Your task to perform on an android device: open wifi settings Image 0: 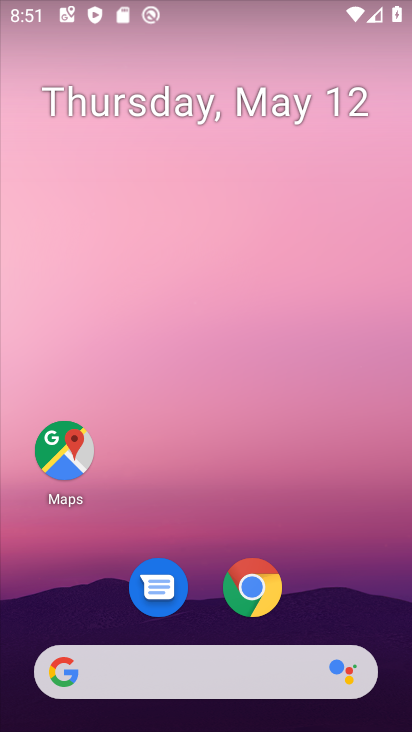
Step 0: drag from (340, 613) to (286, 213)
Your task to perform on an android device: open wifi settings Image 1: 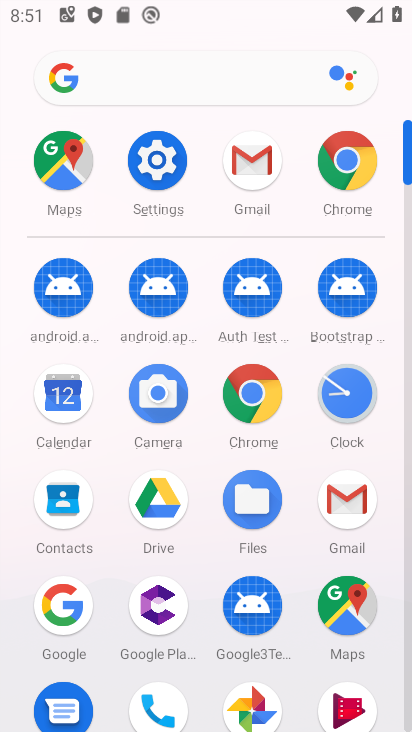
Step 1: click (150, 142)
Your task to perform on an android device: open wifi settings Image 2: 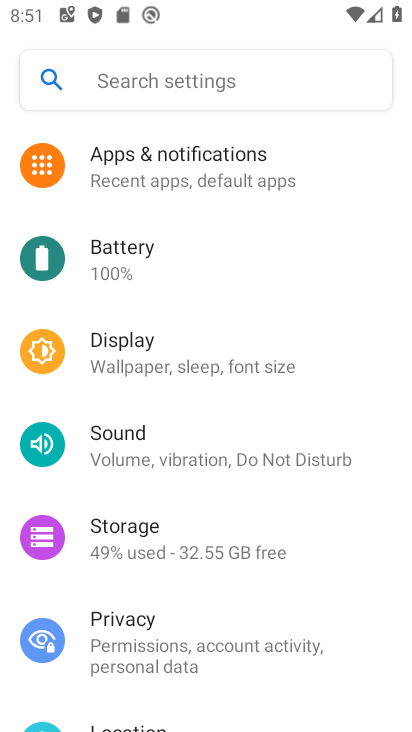
Step 2: drag from (232, 171) to (225, 604)
Your task to perform on an android device: open wifi settings Image 3: 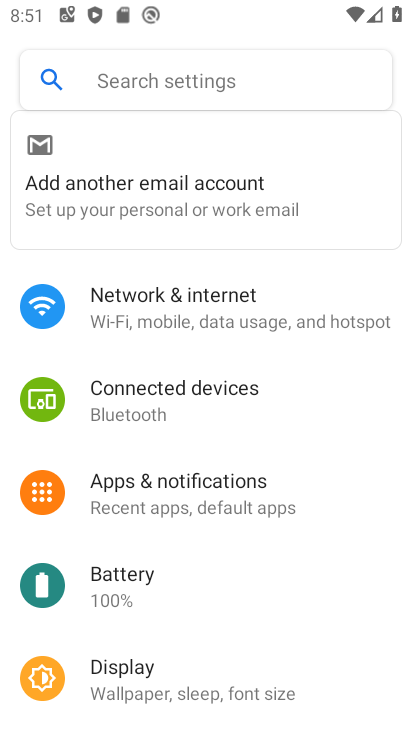
Step 3: click (227, 304)
Your task to perform on an android device: open wifi settings Image 4: 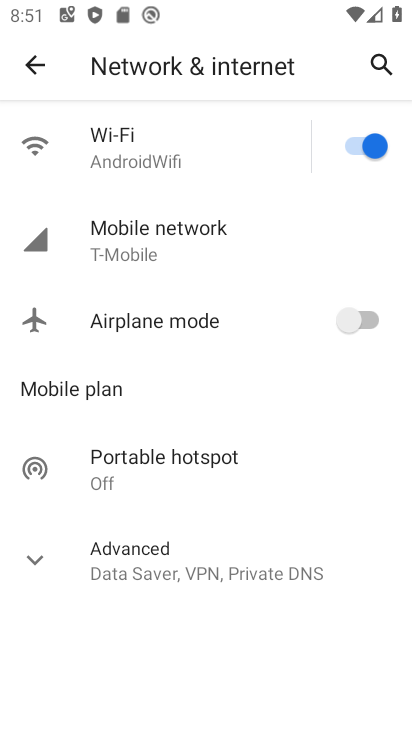
Step 4: task complete